Your task to perform on an android device: turn off location history Image 0: 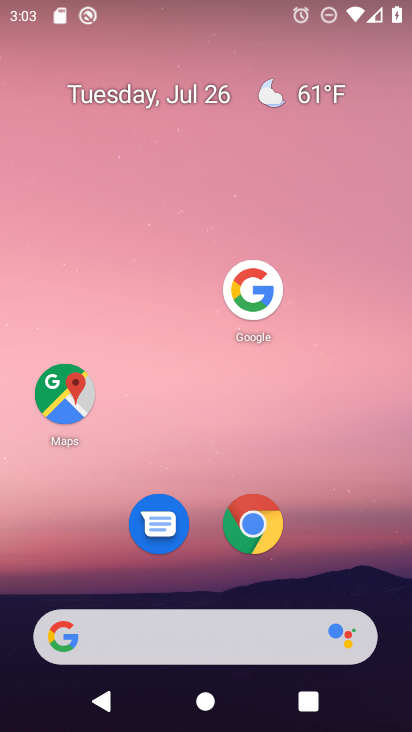
Step 0: click (61, 398)
Your task to perform on an android device: turn off location history Image 1: 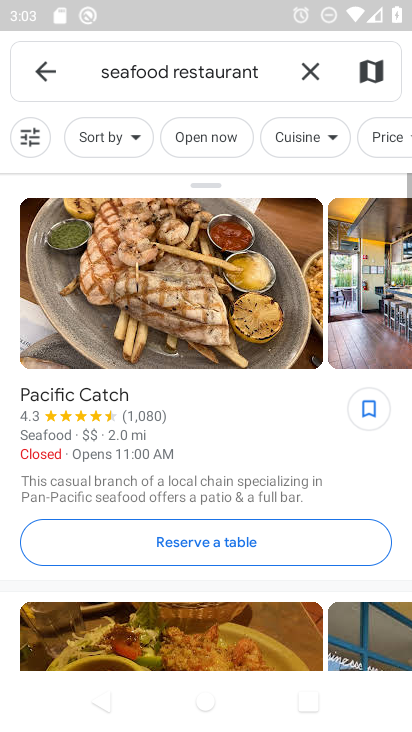
Step 1: click (42, 72)
Your task to perform on an android device: turn off location history Image 2: 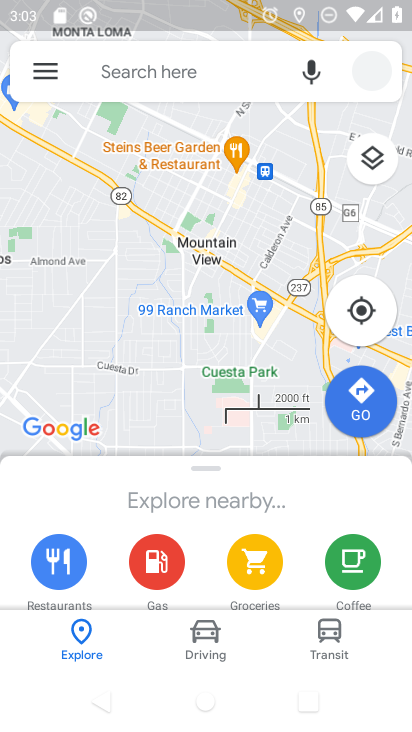
Step 2: click (48, 72)
Your task to perform on an android device: turn off location history Image 3: 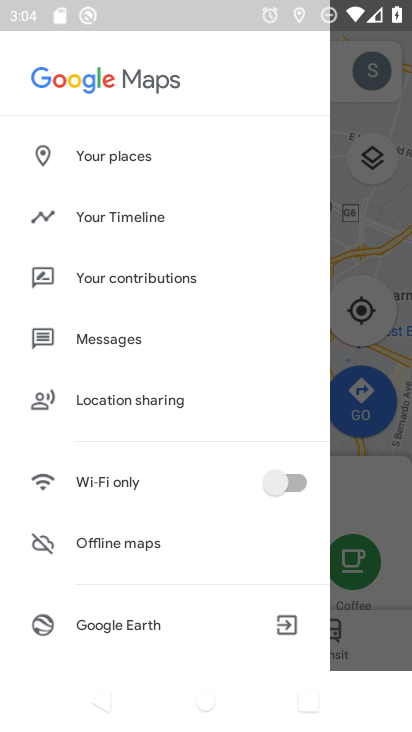
Step 3: click (149, 214)
Your task to perform on an android device: turn off location history Image 4: 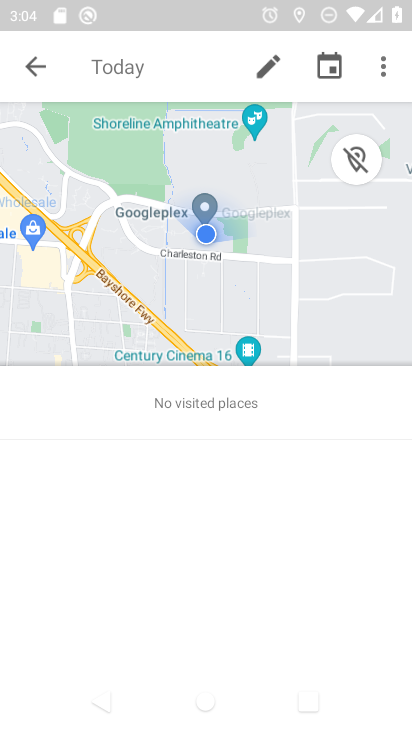
Step 4: click (382, 72)
Your task to perform on an android device: turn off location history Image 5: 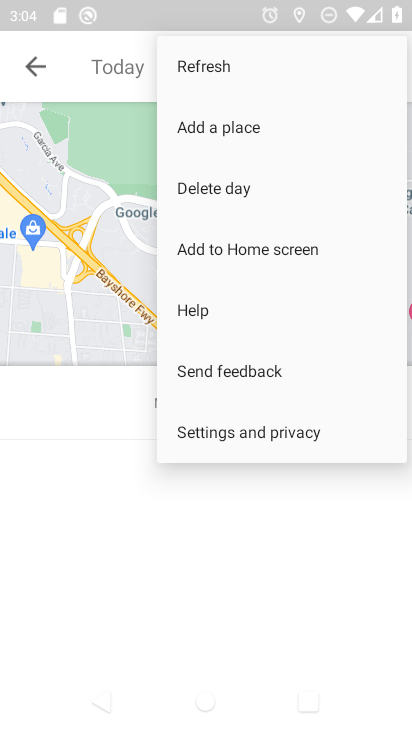
Step 5: click (272, 432)
Your task to perform on an android device: turn off location history Image 6: 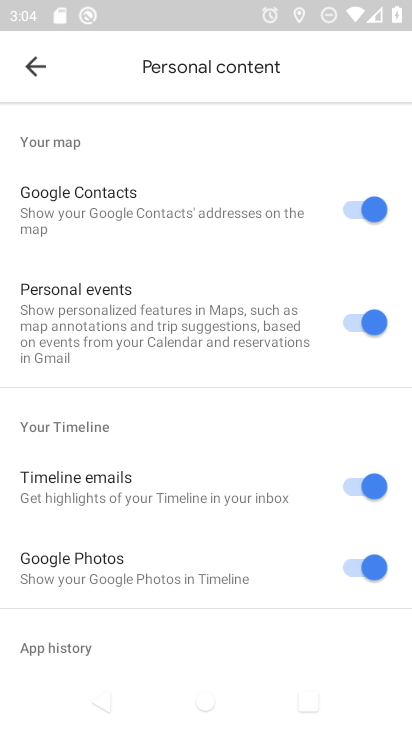
Step 6: drag from (192, 579) to (313, 119)
Your task to perform on an android device: turn off location history Image 7: 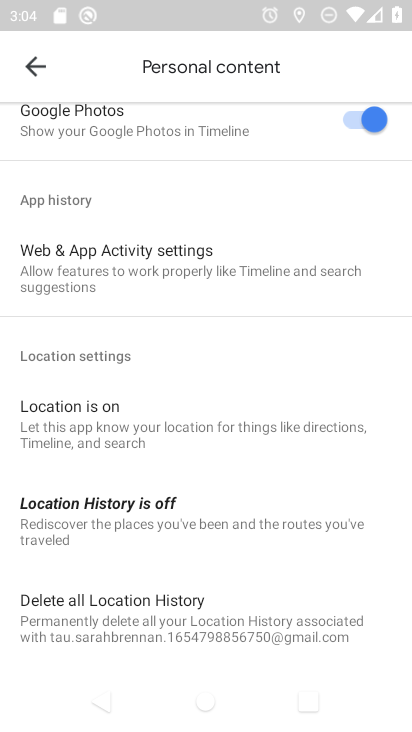
Step 7: click (118, 514)
Your task to perform on an android device: turn off location history Image 8: 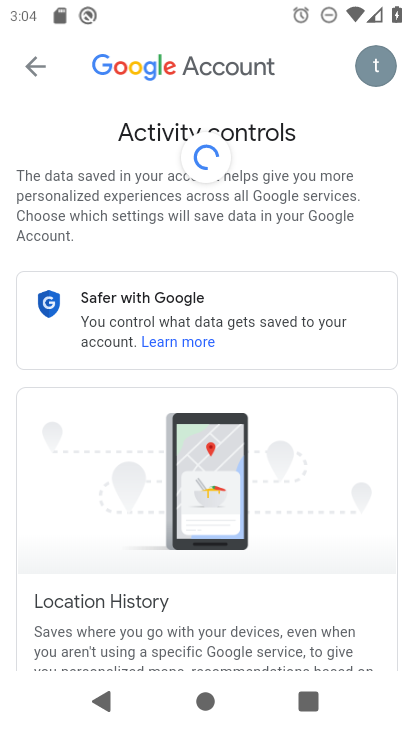
Step 8: drag from (310, 570) to (375, 106)
Your task to perform on an android device: turn off location history Image 9: 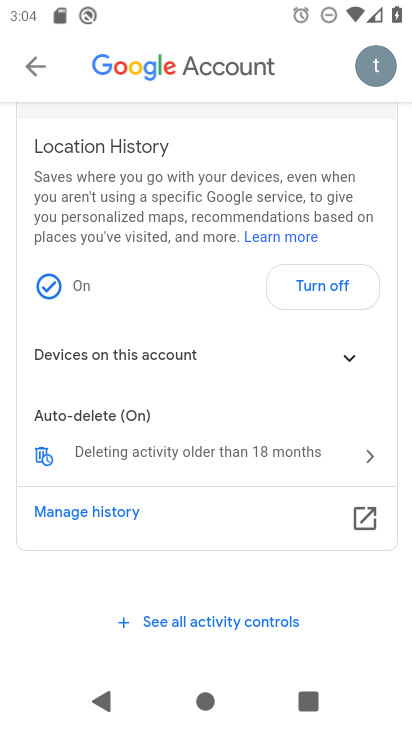
Step 9: click (326, 288)
Your task to perform on an android device: turn off location history Image 10: 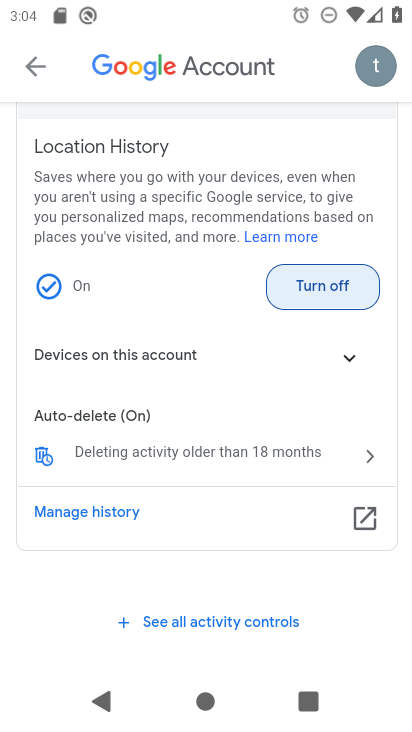
Step 10: click (325, 287)
Your task to perform on an android device: turn off location history Image 11: 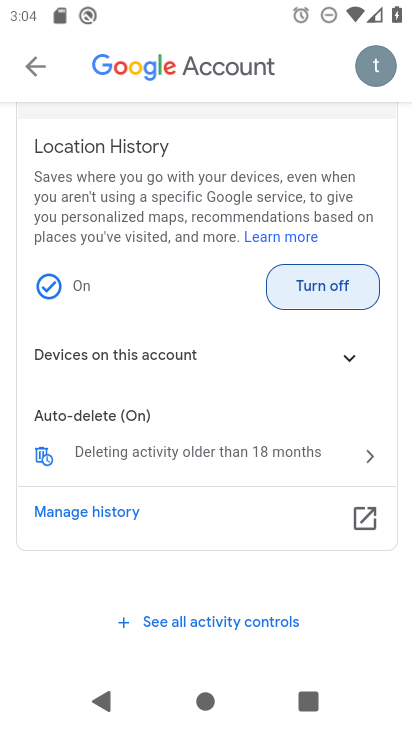
Step 11: click (324, 289)
Your task to perform on an android device: turn off location history Image 12: 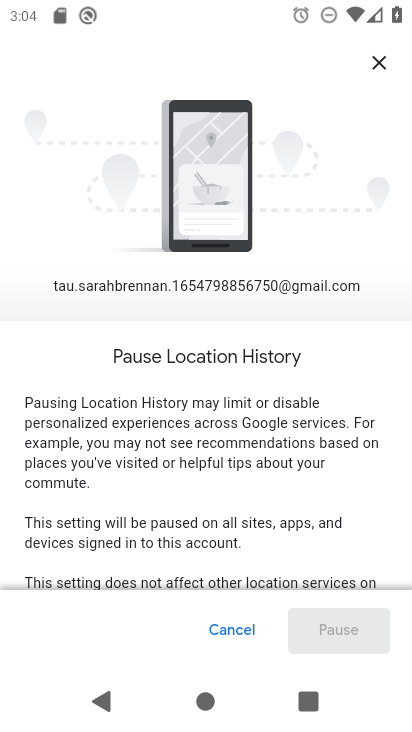
Step 12: drag from (216, 554) to (346, 148)
Your task to perform on an android device: turn off location history Image 13: 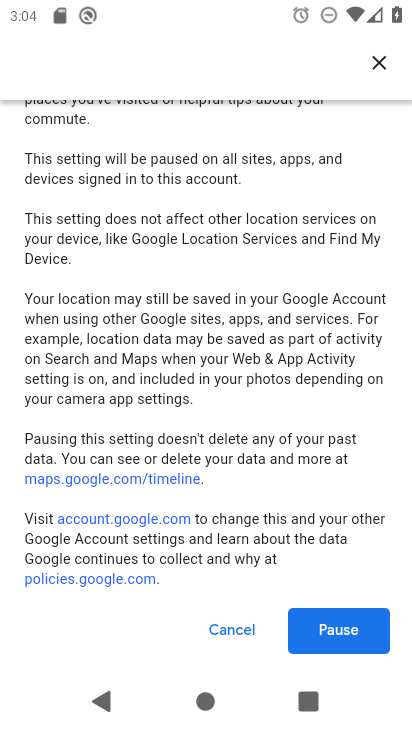
Step 13: drag from (324, 563) to (375, 117)
Your task to perform on an android device: turn off location history Image 14: 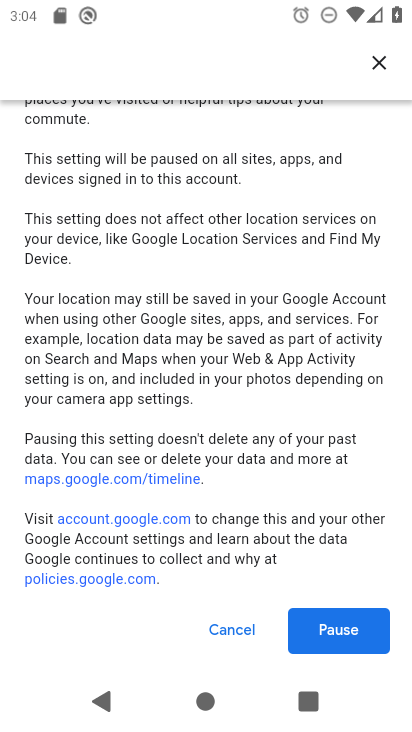
Step 14: click (329, 628)
Your task to perform on an android device: turn off location history Image 15: 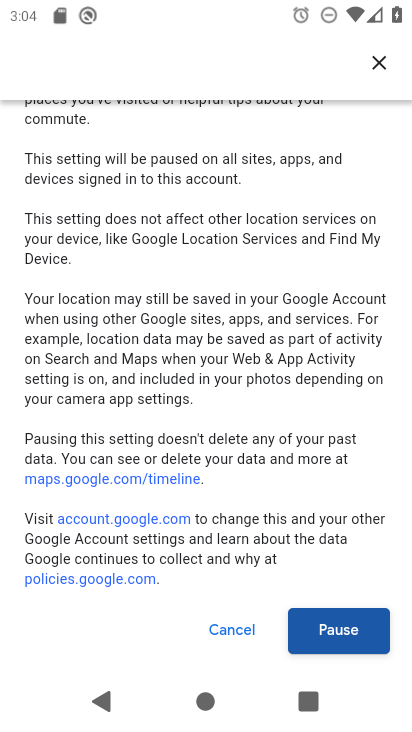
Step 15: click (342, 635)
Your task to perform on an android device: turn off location history Image 16: 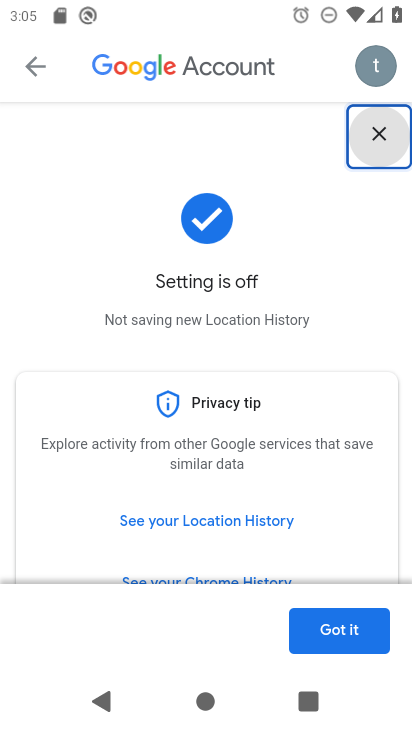
Step 16: click (337, 638)
Your task to perform on an android device: turn off location history Image 17: 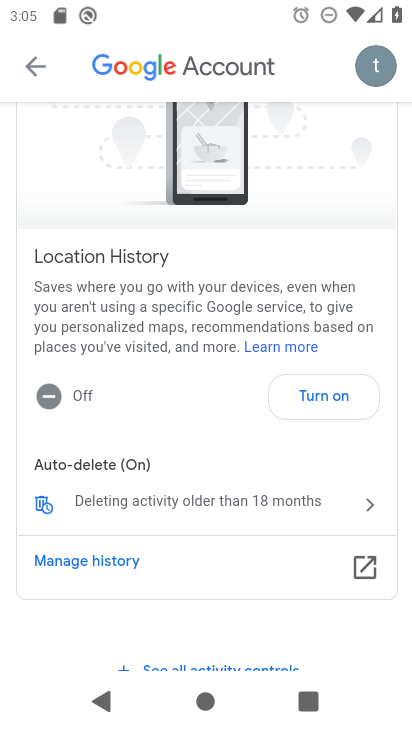
Step 17: task complete